Your task to perform on an android device: open app "Viber Messenger" (install if not already installed) and go to login screen Image 0: 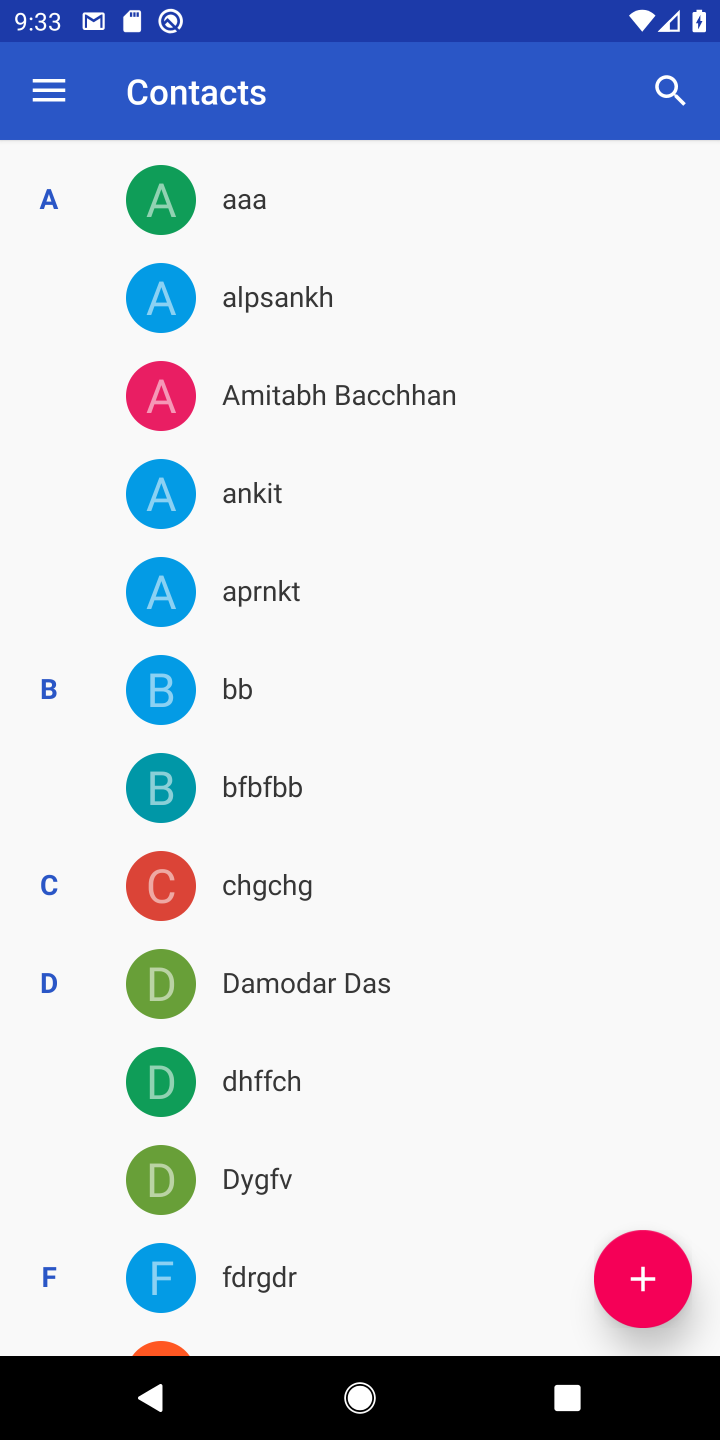
Step 0: press home button
Your task to perform on an android device: open app "Viber Messenger" (install if not already installed) and go to login screen Image 1: 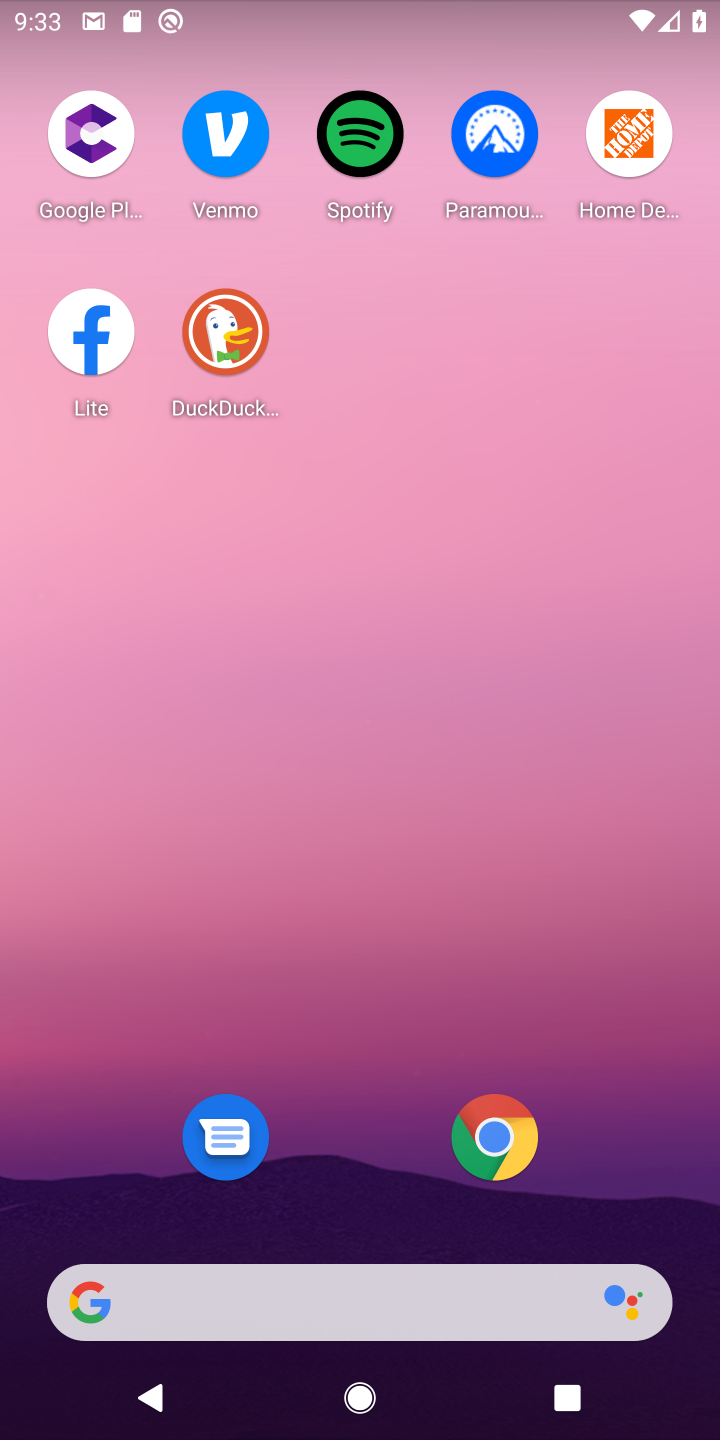
Step 1: drag from (390, 1048) to (432, 312)
Your task to perform on an android device: open app "Viber Messenger" (install if not already installed) and go to login screen Image 2: 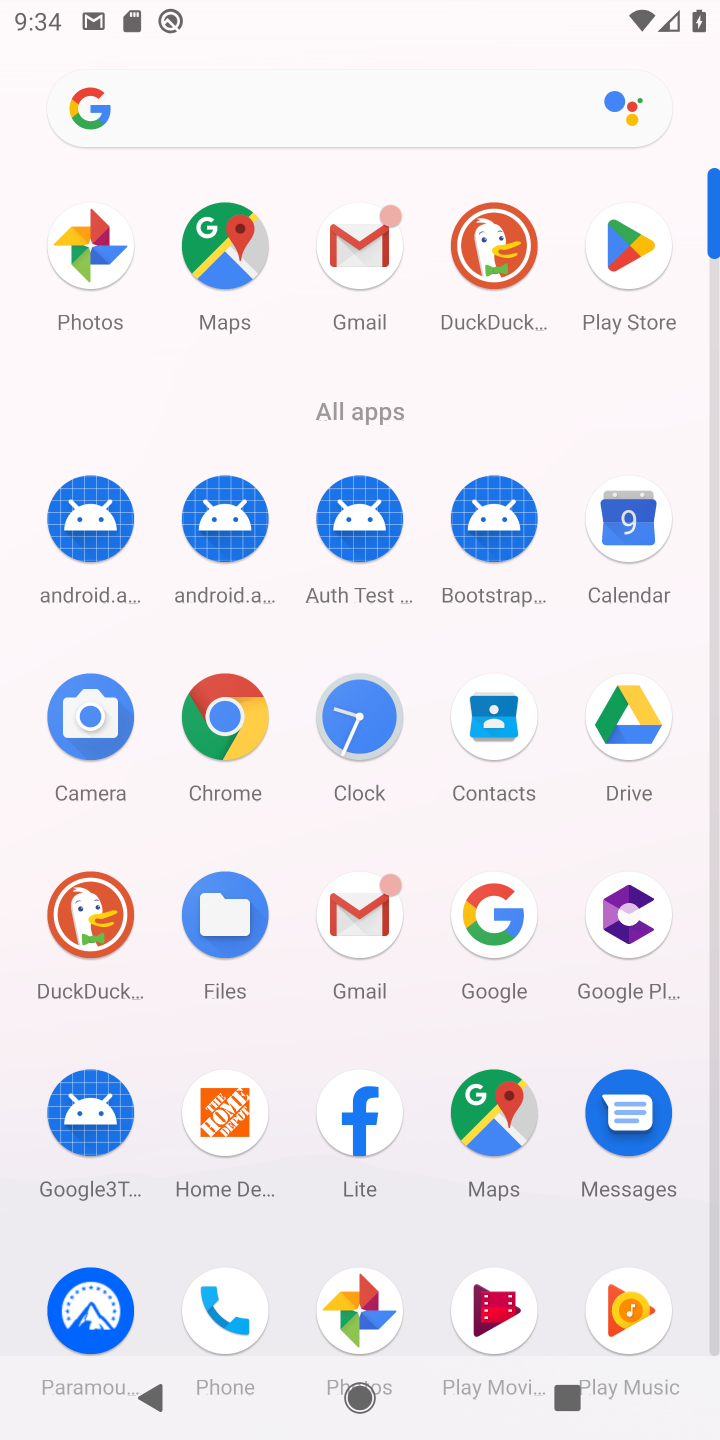
Step 2: click (641, 283)
Your task to perform on an android device: open app "Viber Messenger" (install if not already installed) and go to login screen Image 3: 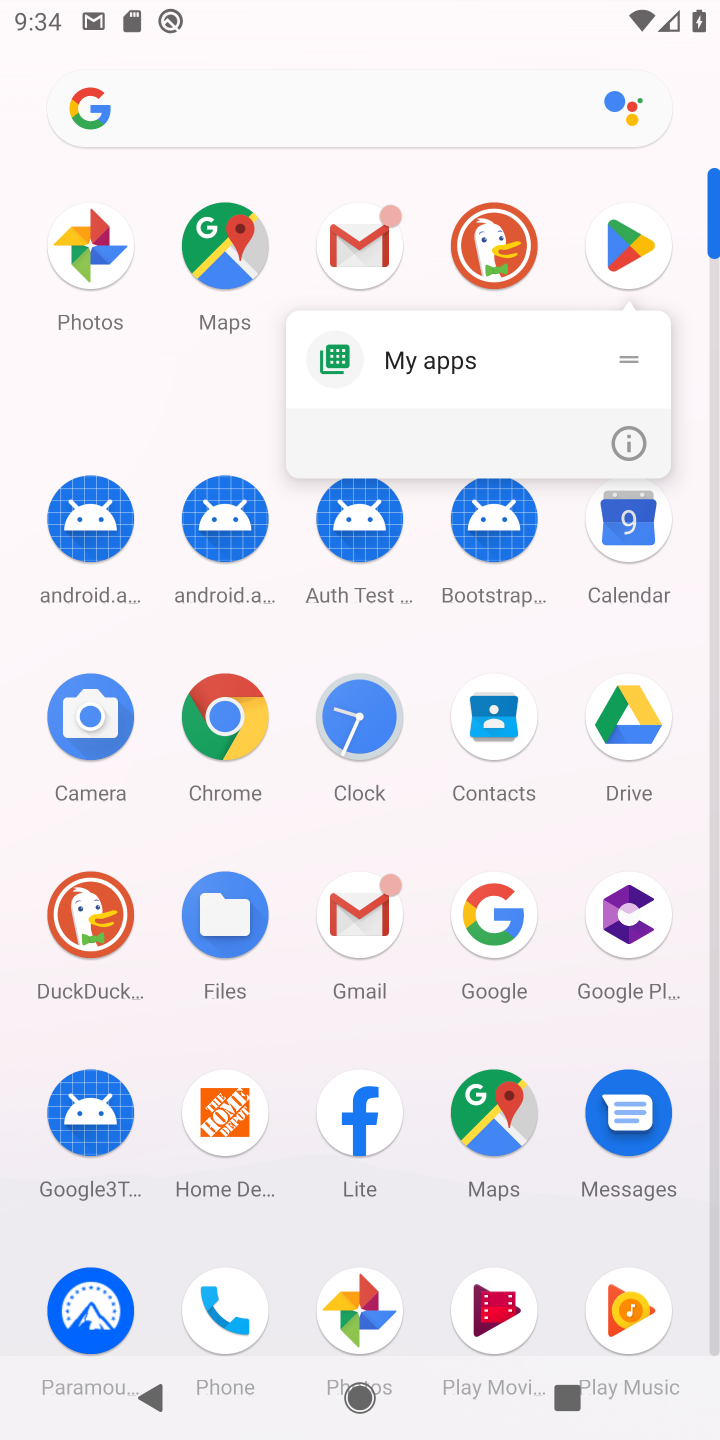
Step 3: click (621, 254)
Your task to perform on an android device: open app "Viber Messenger" (install if not already installed) and go to login screen Image 4: 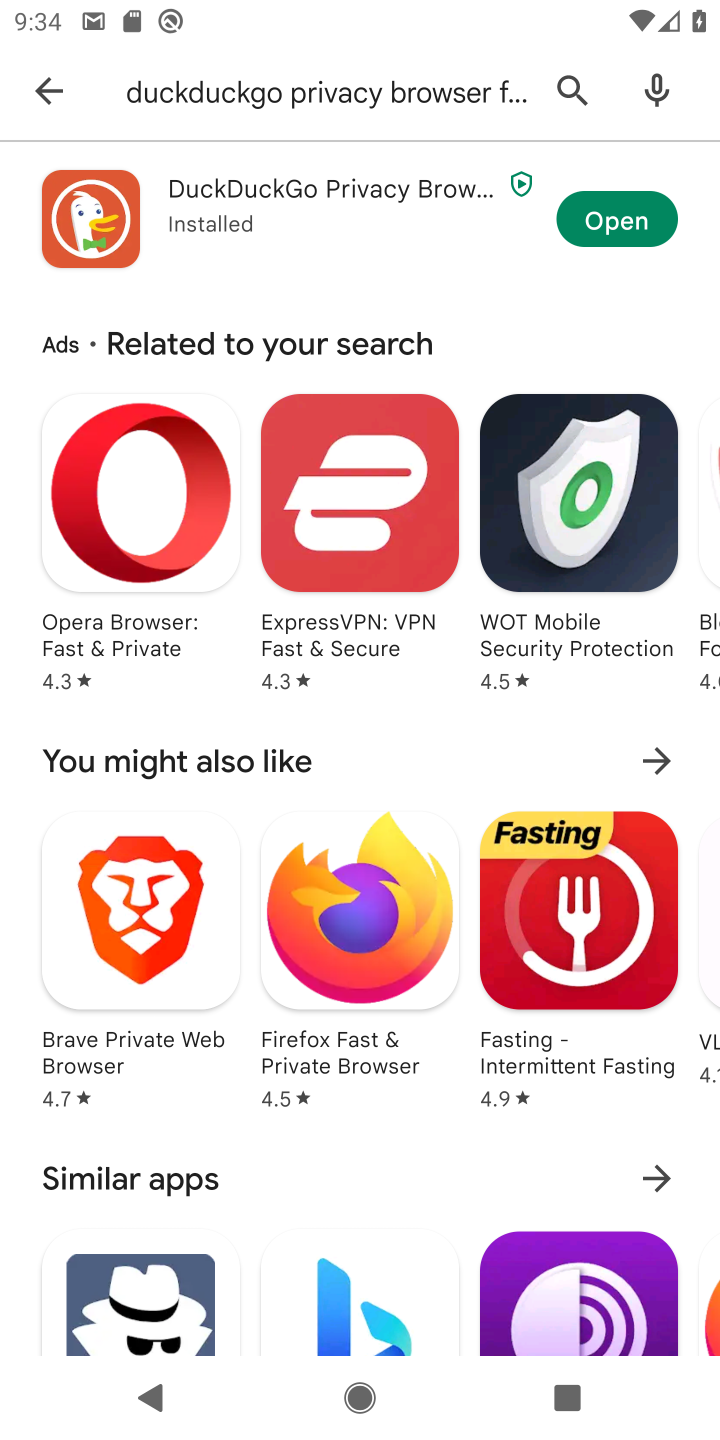
Step 4: click (570, 80)
Your task to perform on an android device: open app "Viber Messenger" (install if not already installed) and go to login screen Image 5: 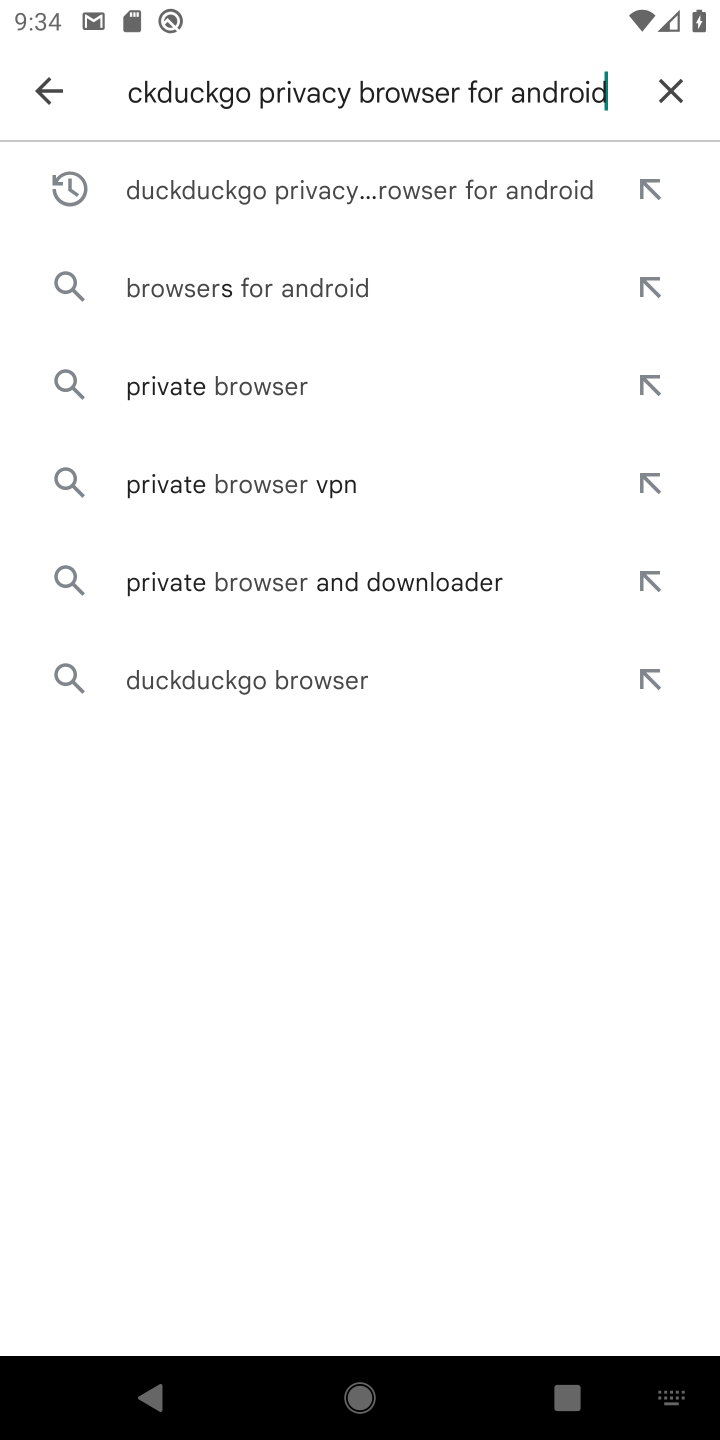
Step 5: click (674, 97)
Your task to perform on an android device: open app "Viber Messenger" (install if not already installed) and go to login screen Image 6: 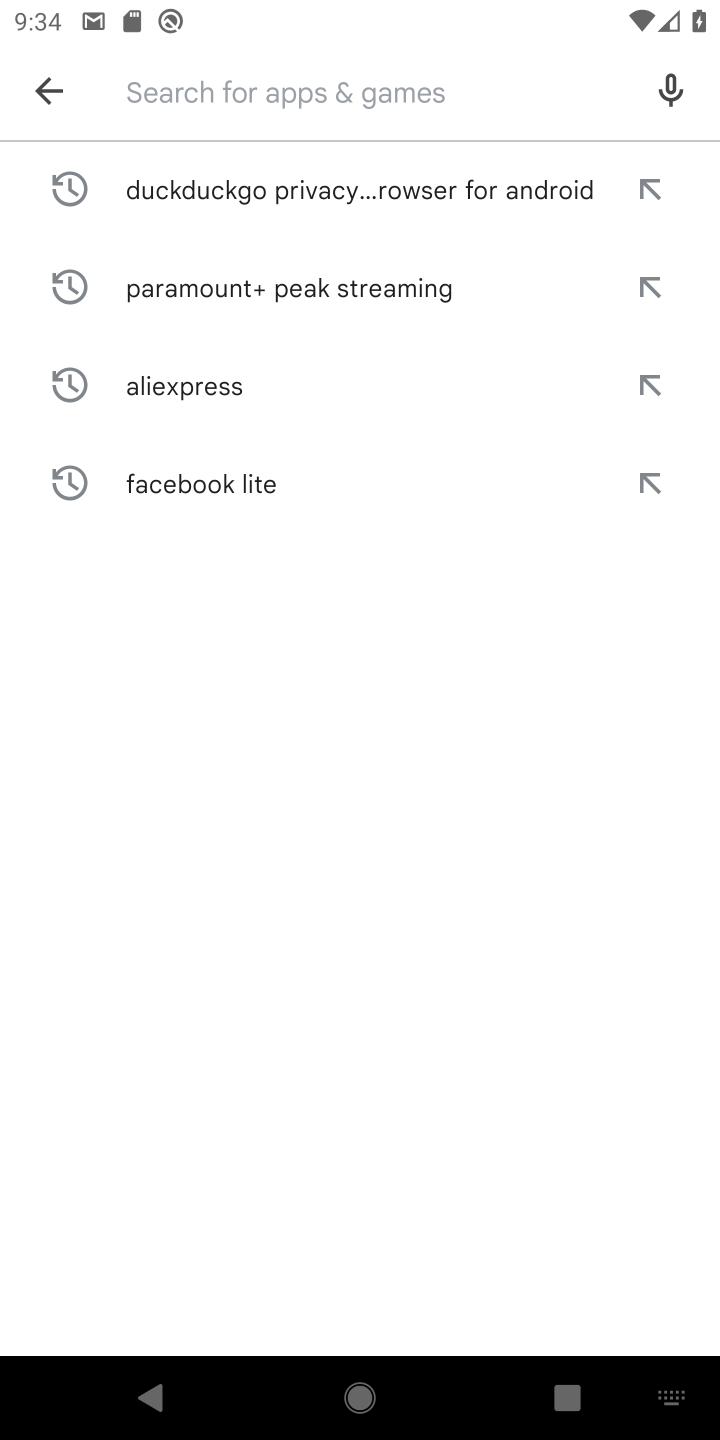
Step 6: type "Viber Messenger"
Your task to perform on an android device: open app "Viber Messenger" (install if not already installed) and go to login screen Image 7: 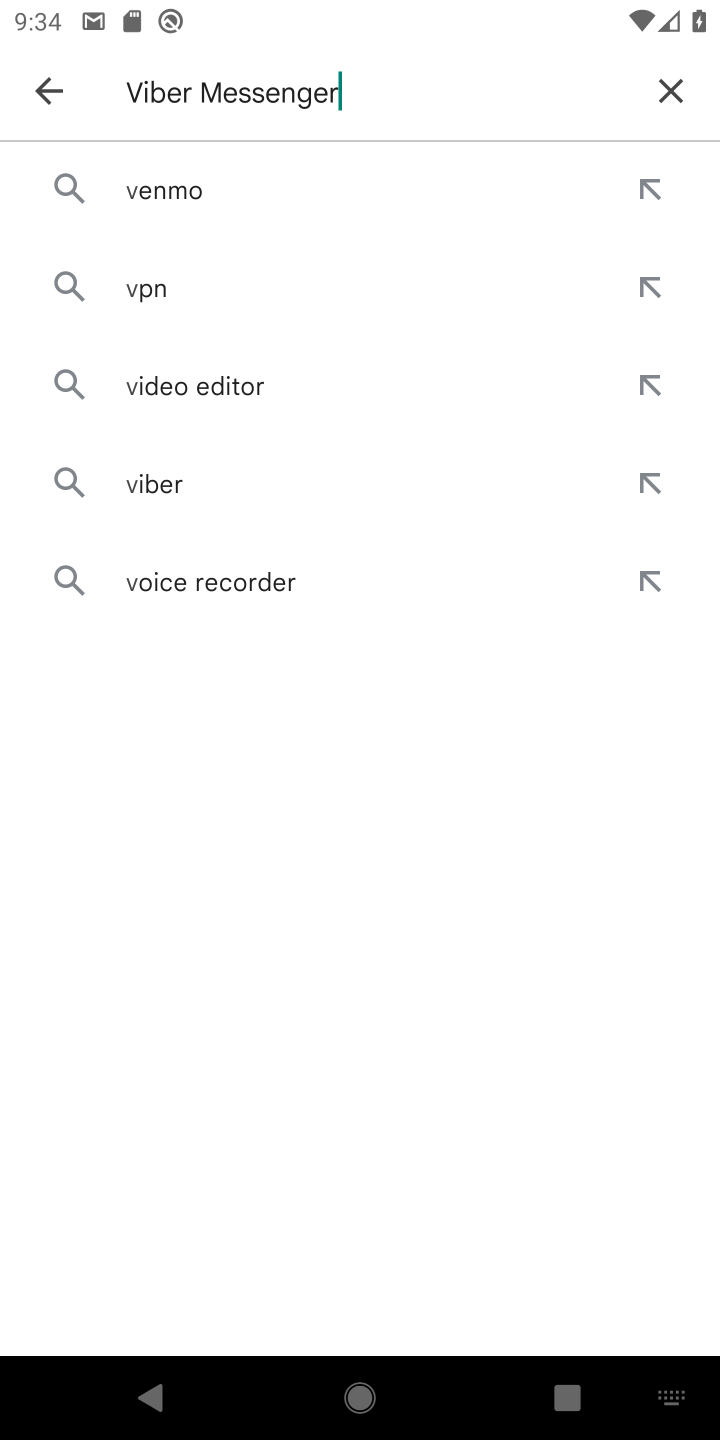
Step 7: type ""
Your task to perform on an android device: open app "Viber Messenger" (install if not already installed) and go to login screen Image 8: 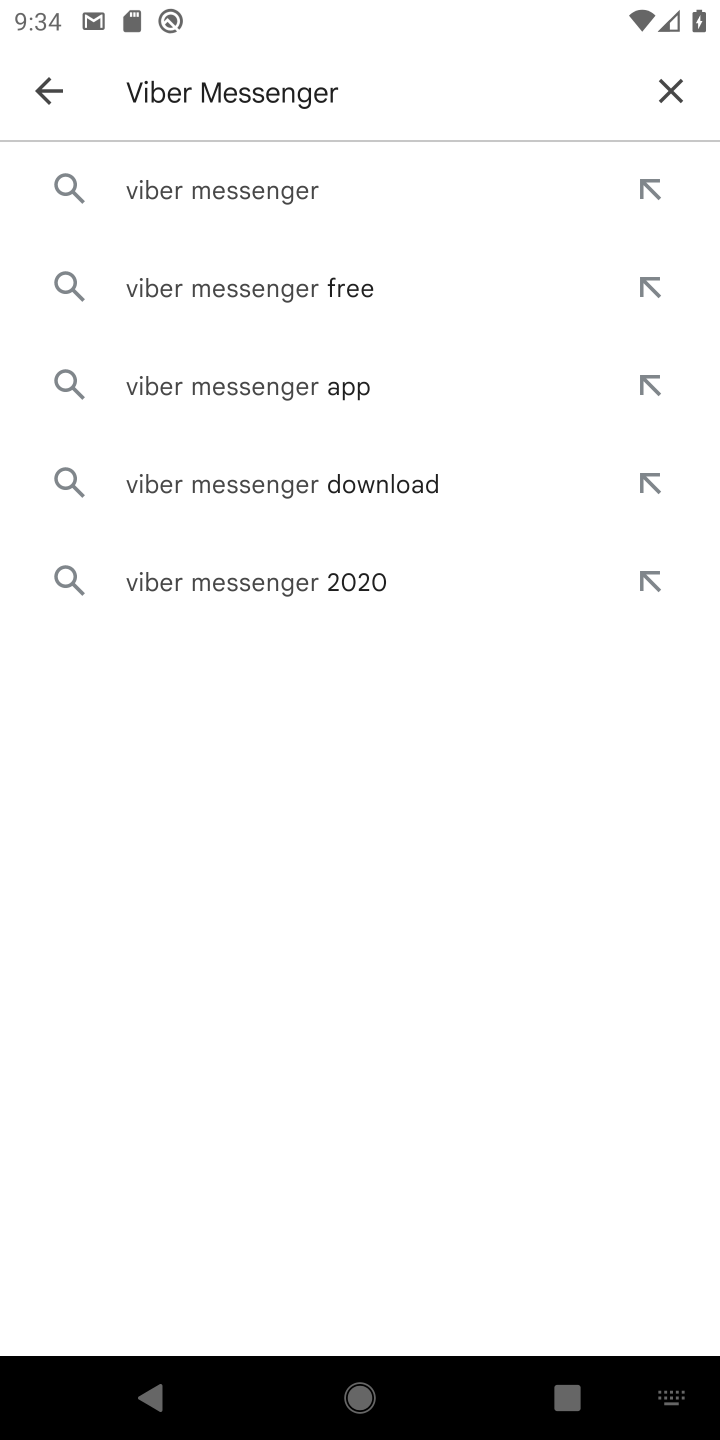
Step 8: click (310, 185)
Your task to perform on an android device: open app "Viber Messenger" (install if not already installed) and go to login screen Image 9: 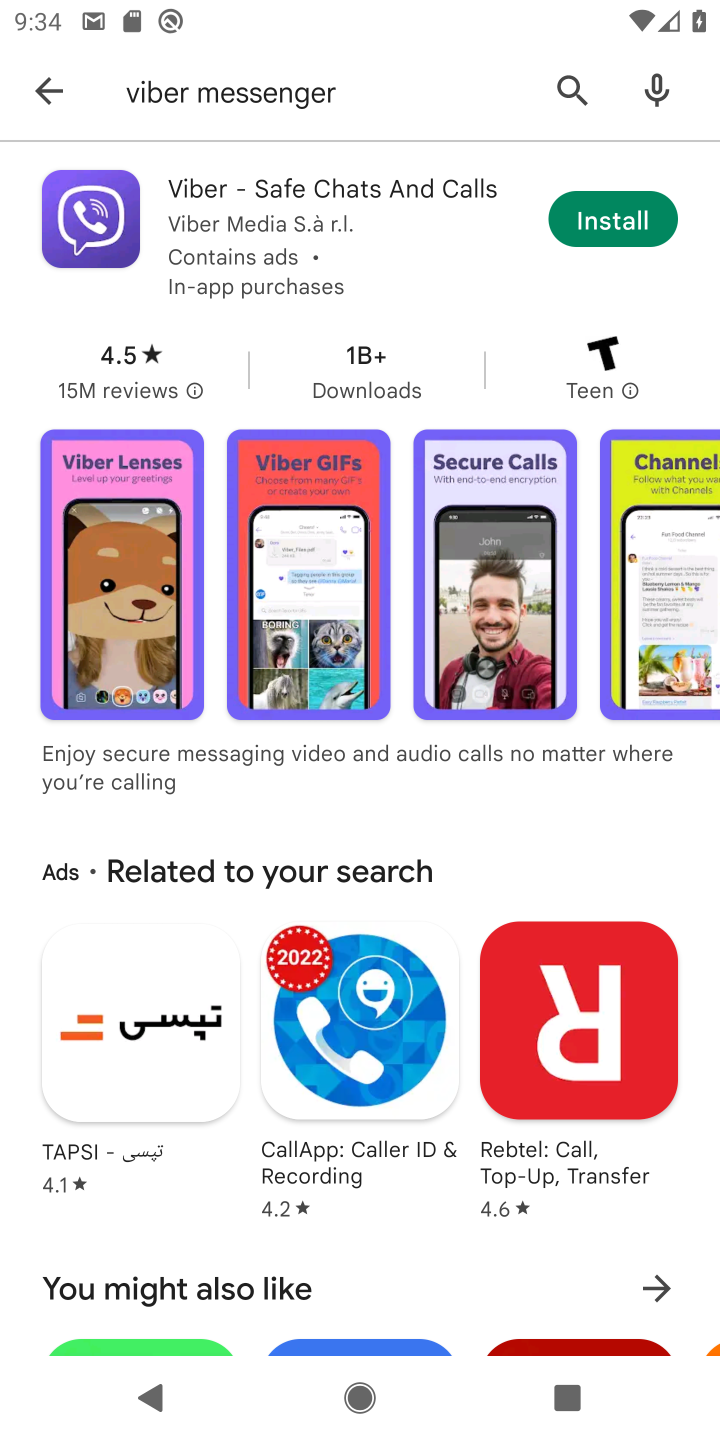
Step 9: click (600, 220)
Your task to perform on an android device: open app "Viber Messenger" (install if not already installed) and go to login screen Image 10: 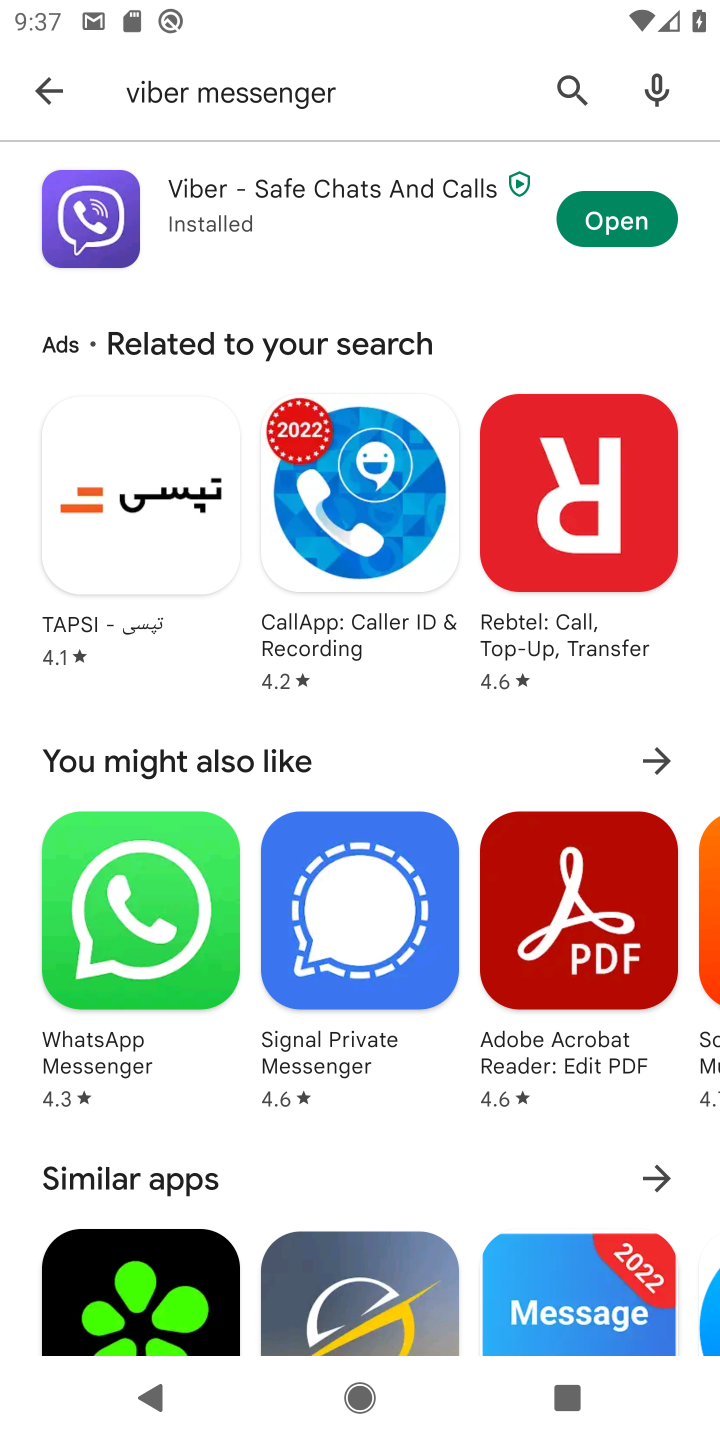
Step 10: click (590, 219)
Your task to perform on an android device: open app "Viber Messenger" (install if not already installed) and go to login screen Image 11: 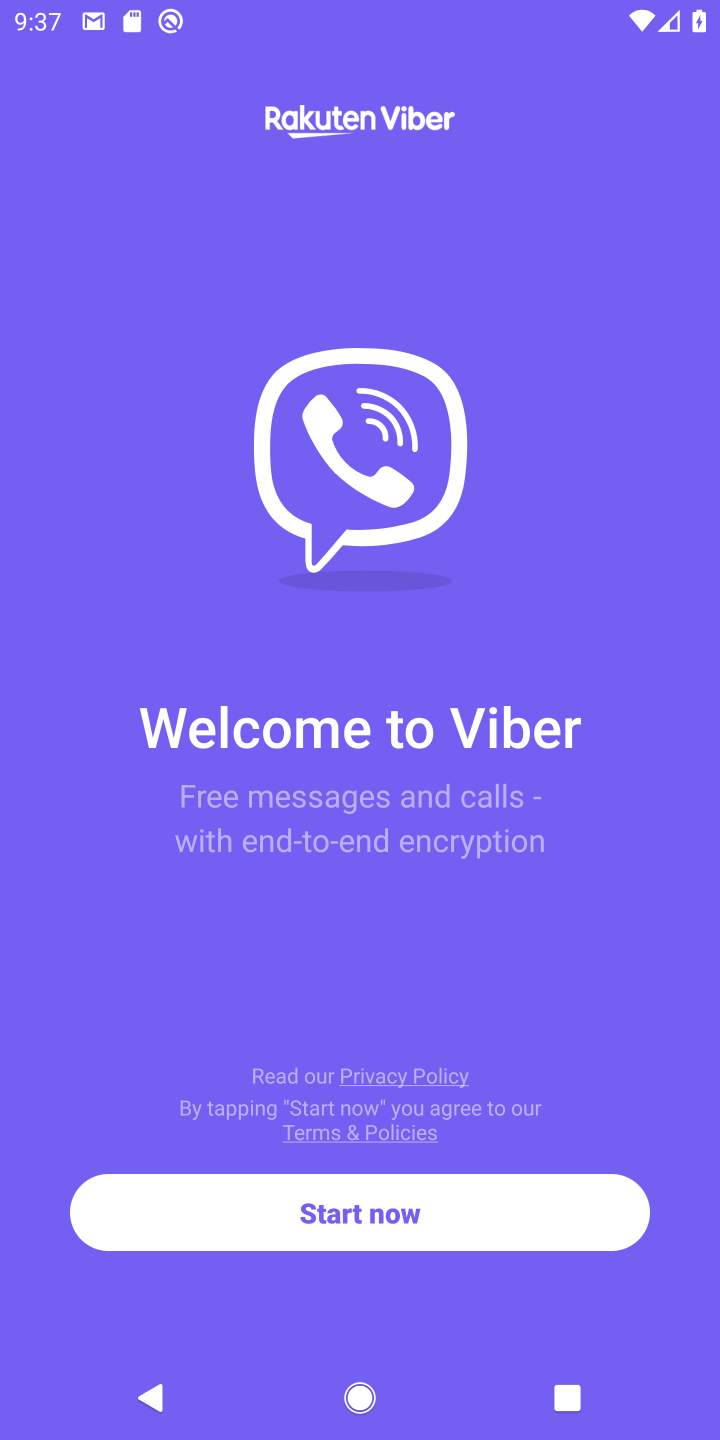
Step 11: task complete